Your task to perform on an android device: turn off priority inbox in the gmail app Image 0: 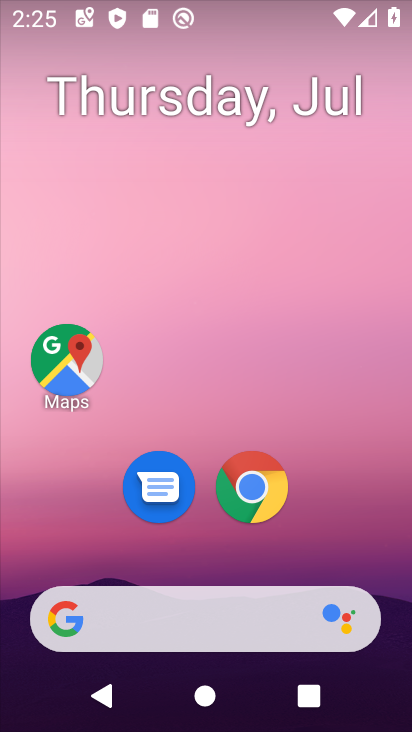
Step 0: drag from (368, 556) to (372, 156)
Your task to perform on an android device: turn off priority inbox in the gmail app Image 1: 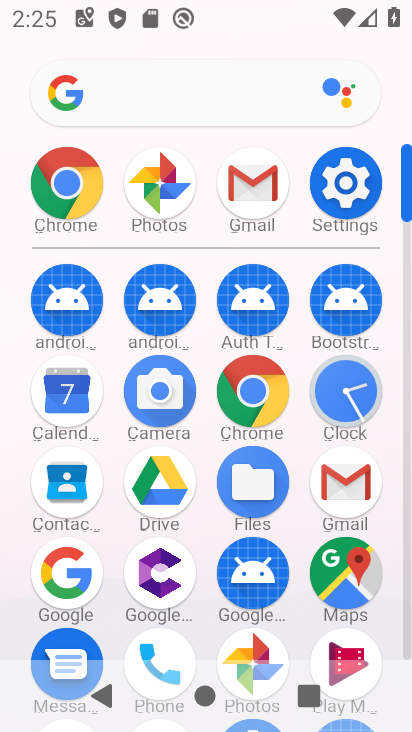
Step 1: click (347, 485)
Your task to perform on an android device: turn off priority inbox in the gmail app Image 2: 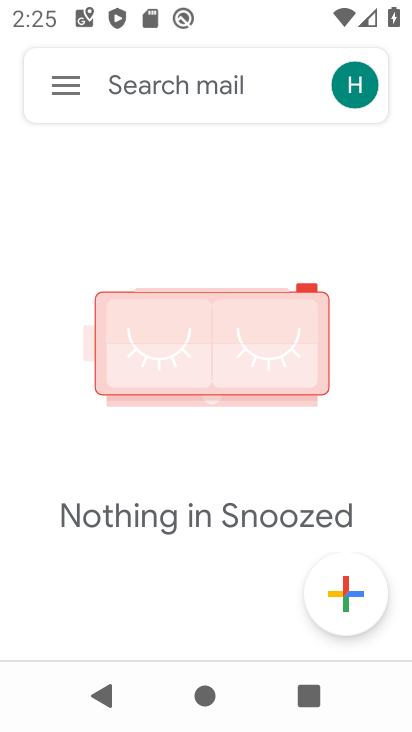
Step 2: click (66, 92)
Your task to perform on an android device: turn off priority inbox in the gmail app Image 3: 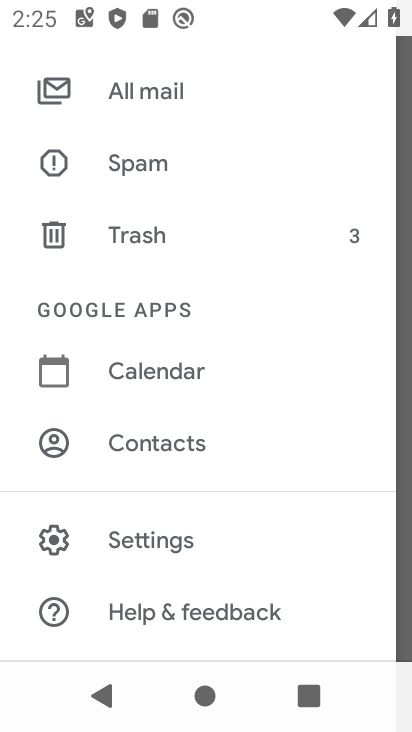
Step 3: click (146, 537)
Your task to perform on an android device: turn off priority inbox in the gmail app Image 4: 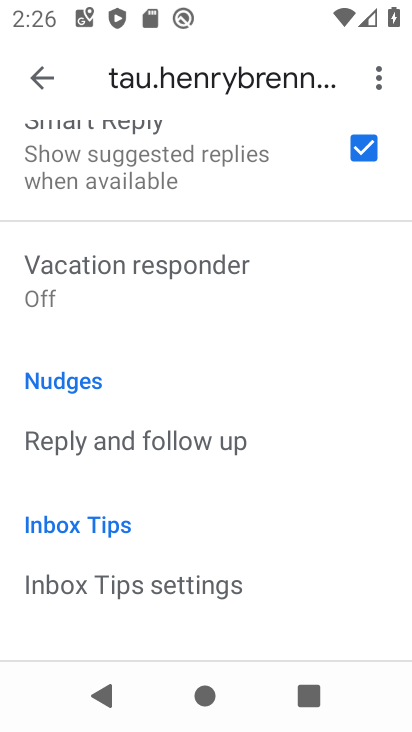
Step 4: task complete